Your task to perform on an android device: read, delete, or share a saved page in the chrome app Image 0: 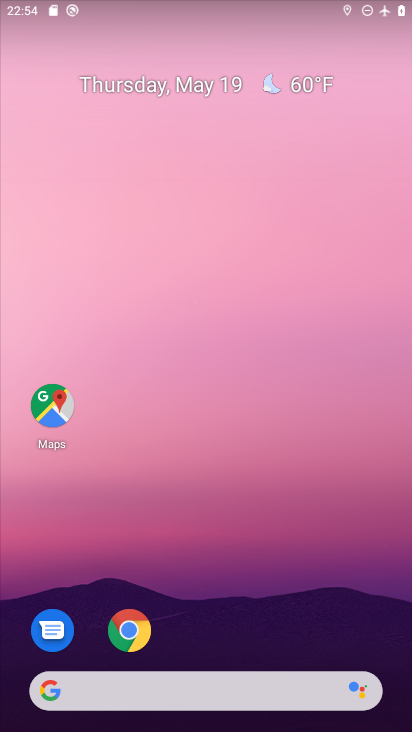
Step 0: click (138, 631)
Your task to perform on an android device: read, delete, or share a saved page in the chrome app Image 1: 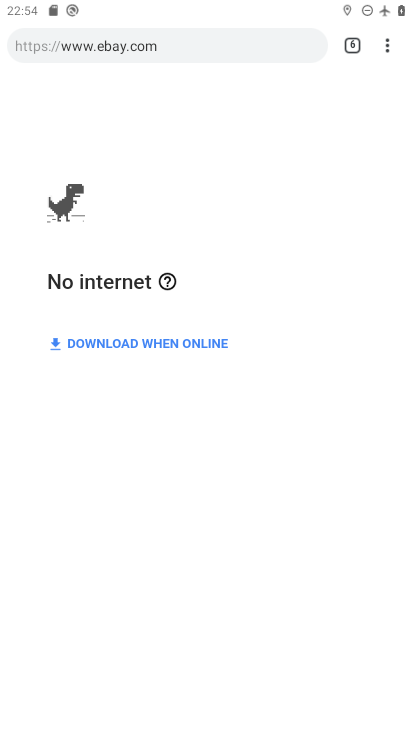
Step 1: click (386, 43)
Your task to perform on an android device: read, delete, or share a saved page in the chrome app Image 2: 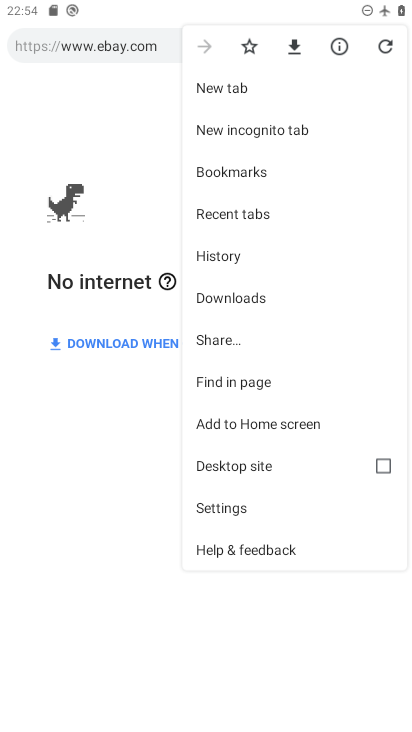
Step 2: click (225, 295)
Your task to perform on an android device: read, delete, or share a saved page in the chrome app Image 3: 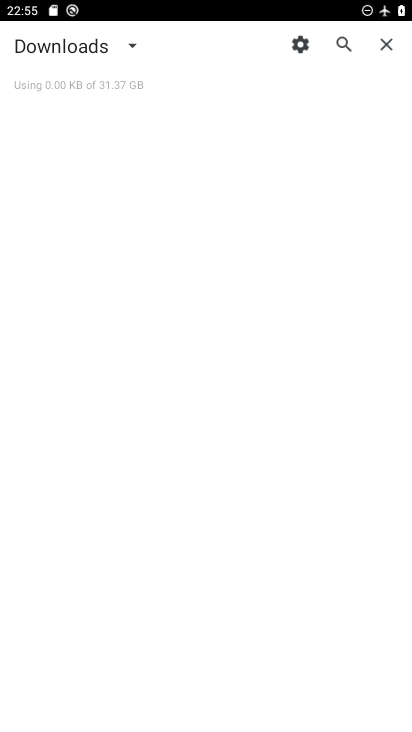
Step 3: click (381, 39)
Your task to perform on an android device: read, delete, or share a saved page in the chrome app Image 4: 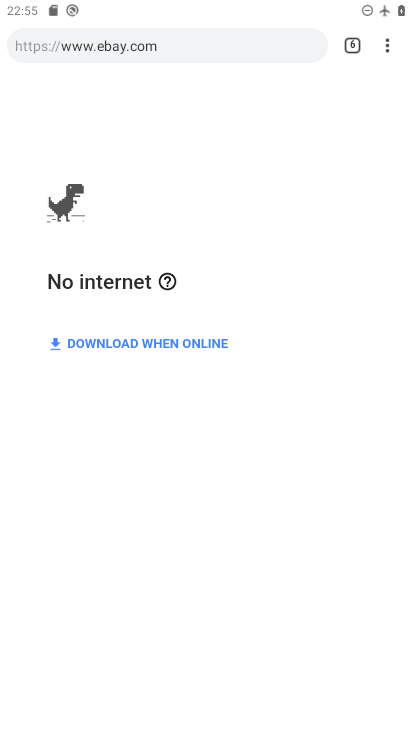
Step 4: task complete